Your task to perform on an android device: Open the map Image 0: 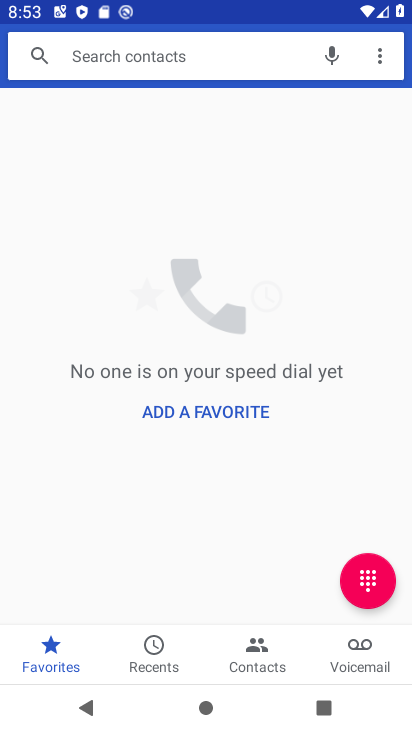
Step 0: press home button
Your task to perform on an android device: Open the map Image 1: 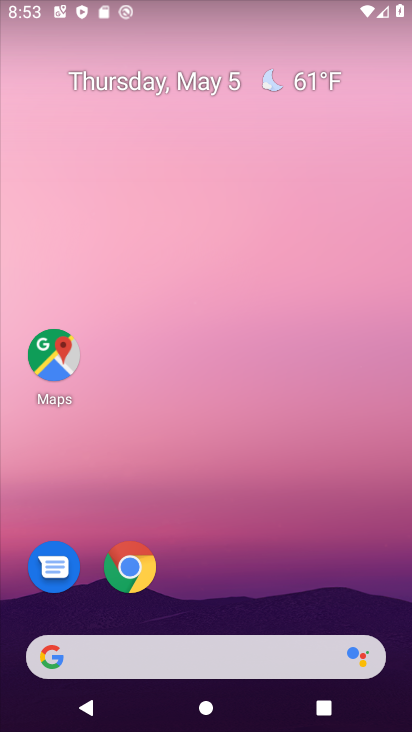
Step 1: click (55, 354)
Your task to perform on an android device: Open the map Image 2: 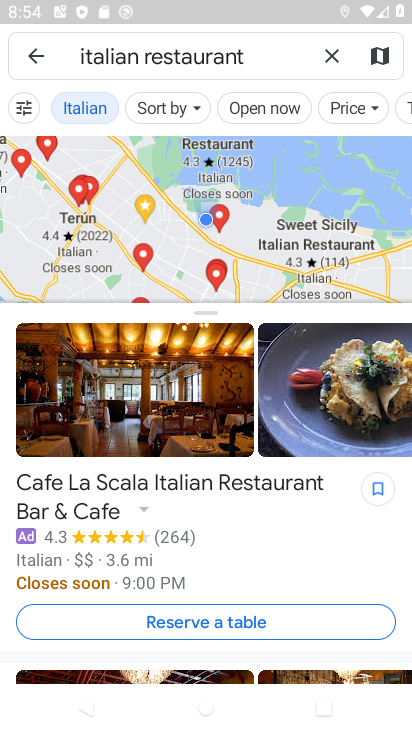
Step 2: task complete